Your task to perform on an android device: Open sound settings Image 0: 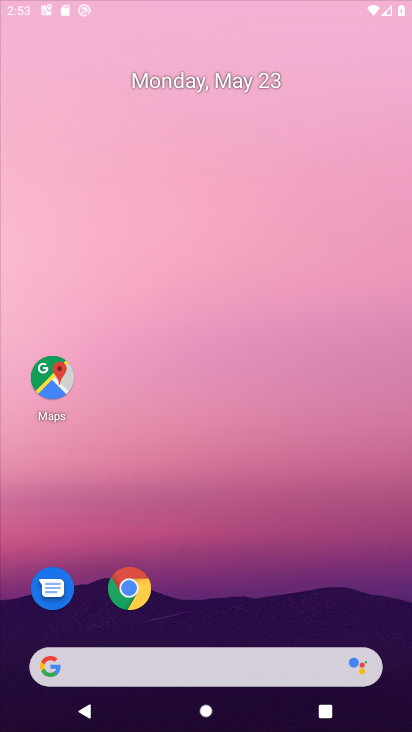
Step 0: click (272, 167)
Your task to perform on an android device: Open sound settings Image 1: 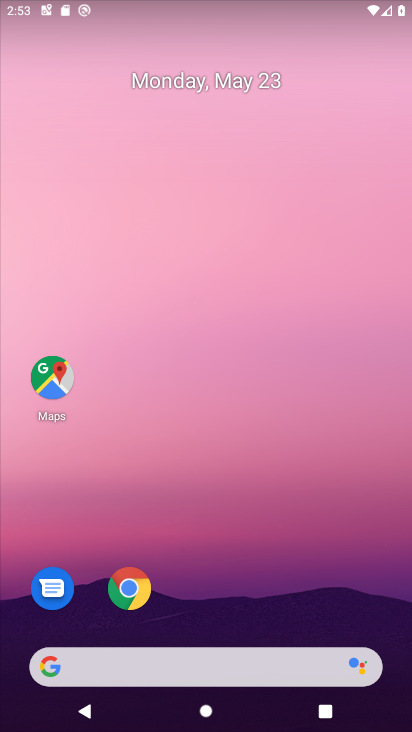
Step 1: drag from (190, 630) to (268, 143)
Your task to perform on an android device: Open sound settings Image 2: 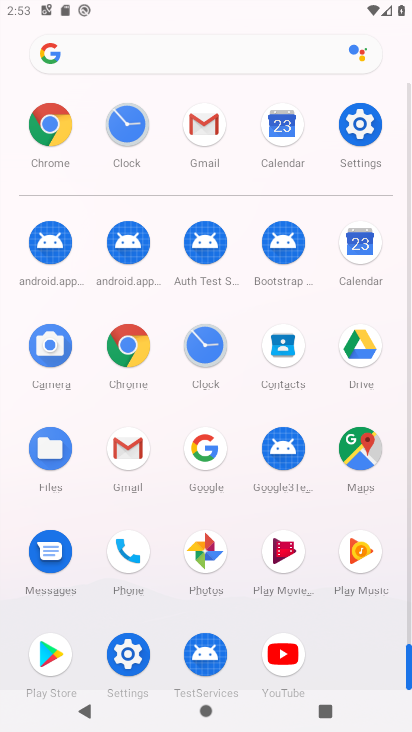
Step 2: click (347, 118)
Your task to perform on an android device: Open sound settings Image 3: 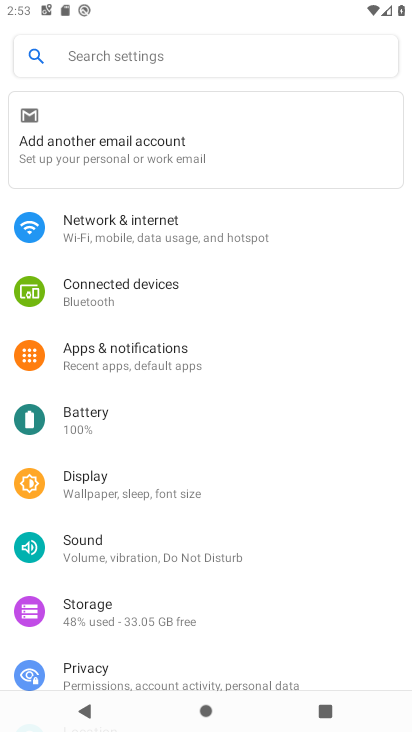
Step 3: click (127, 557)
Your task to perform on an android device: Open sound settings Image 4: 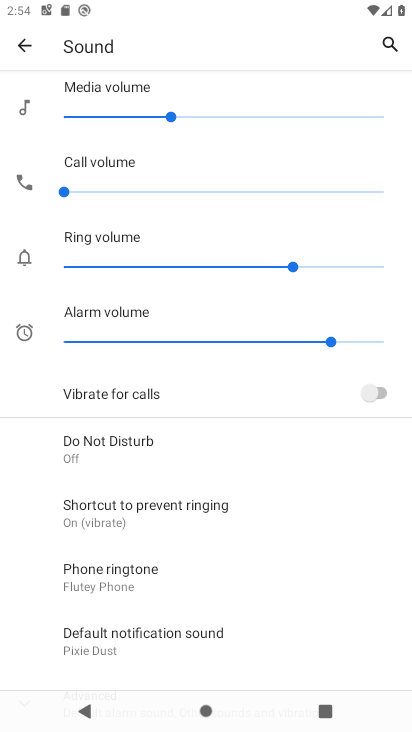
Step 4: task complete